Your task to perform on an android device: open app "Move to iOS" (install if not already installed) and enter user name: "Decca@icloud.com" and password: "reabbreviate" Image 0: 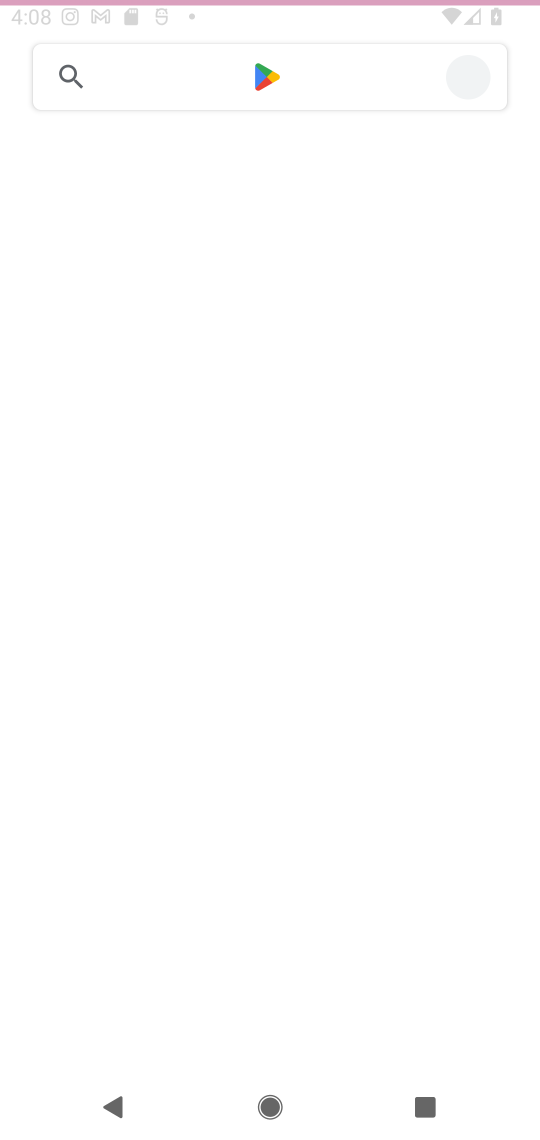
Step 0: press home button
Your task to perform on an android device: open app "Move to iOS" (install if not already installed) and enter user name: "Decca@icloud.com" and password: "reabbreviate" Image 1: 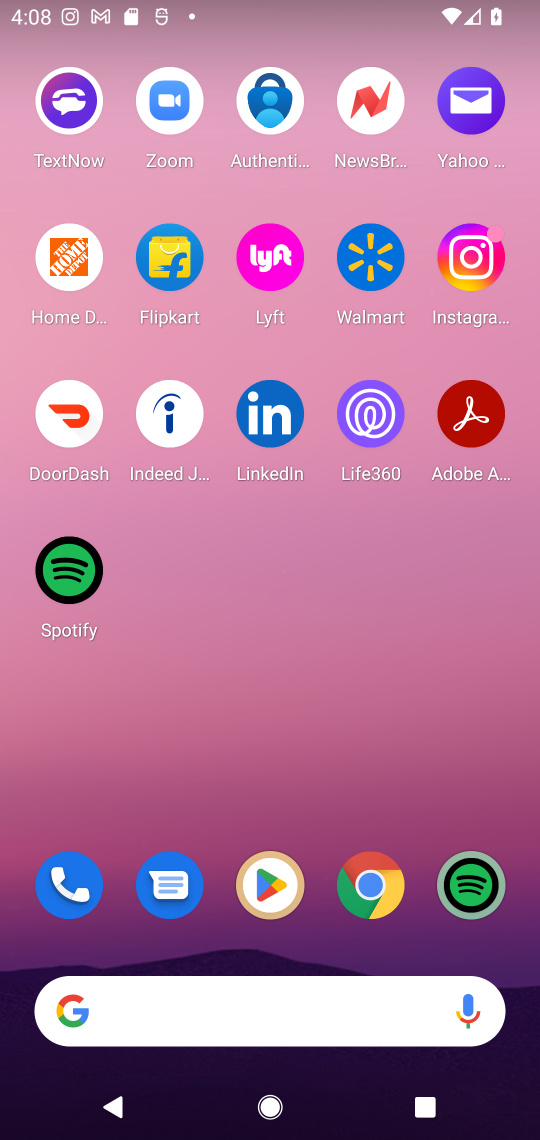
Step 1: press home button
Your task to perform on an android device: open app "Move to iOS" (install if not already installed) and enter user name: "Decca@icloud.com" and password: "reabbreviate" Image 2: 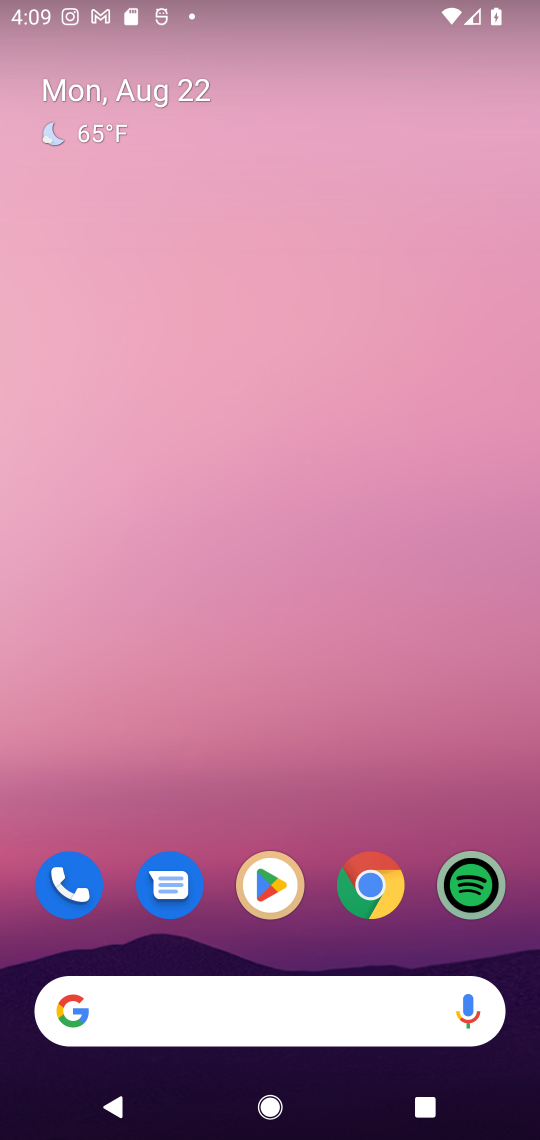
Step 2: click (261, 878)
Your task to perform on an android device: open app "Move to iOS" (install if not already installed) and enter user name: "Decca@icloud.com" and password: "reabbreviate" Image 3: 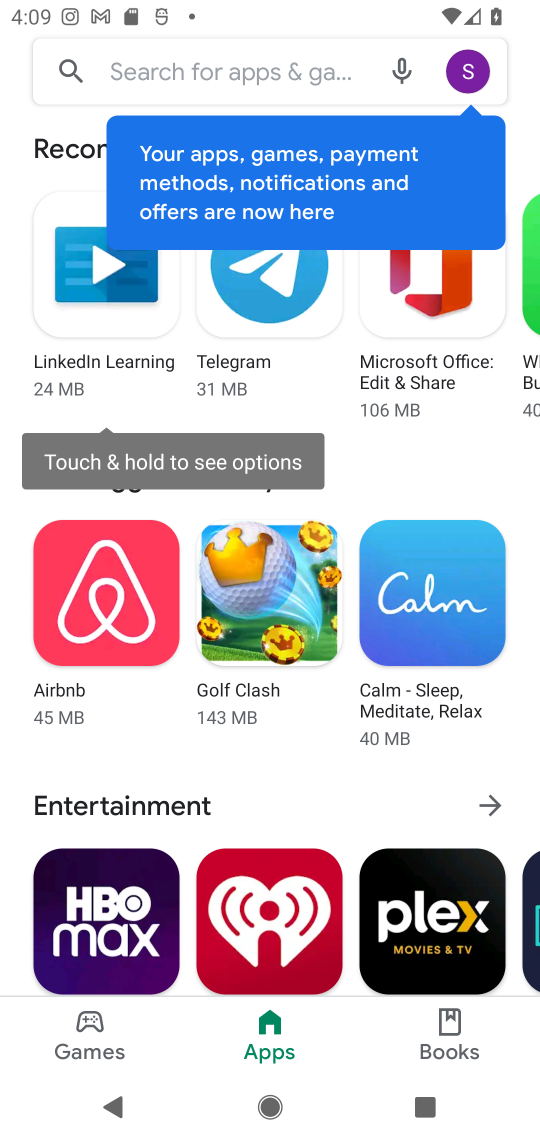
Step 3: click (227, 61)
Your task to perform on an android device: open app "Move to iOS" (install if not already installed) and enter user name: "Decca@icloud.com" and password: "reabbreviate" Image 4: 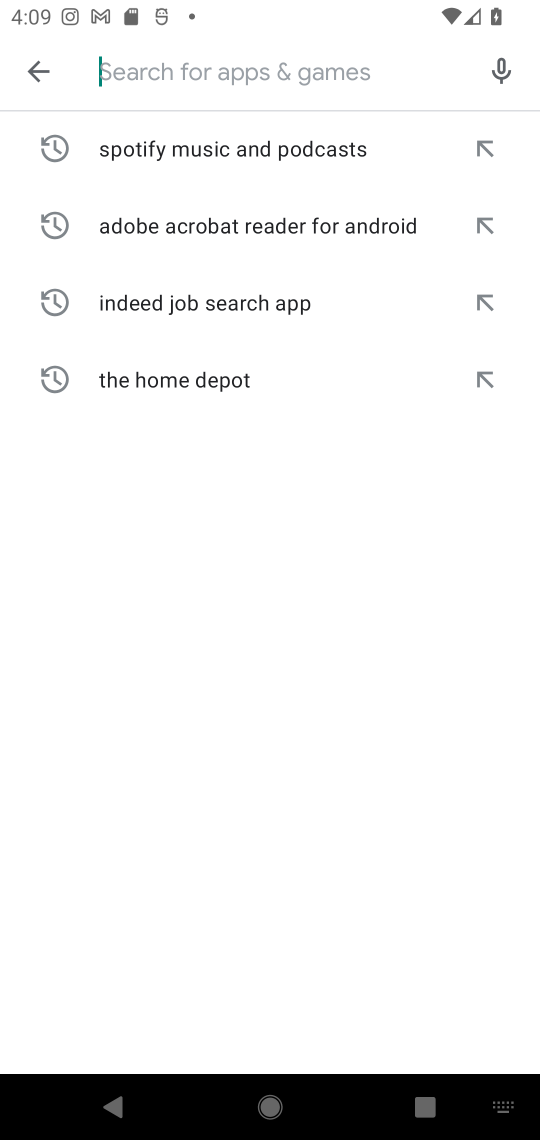
Step 4: type "Move to iOS"
Your task to perform on an android device: open app "Move to iOS" (install if not already installed) and enter user name: "Decca@icloud.com" and password: "reabbreviate" Image 5: 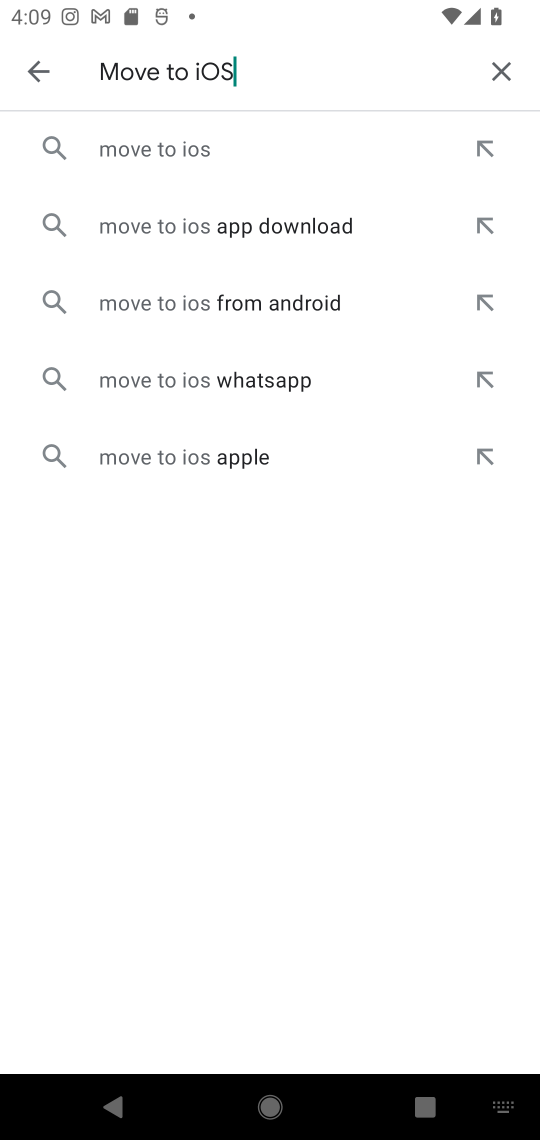
Step 5: click (214, 148)
Your task to perform on an android device: open app "Move to iOS" (install if not already installed) and enter user name: "Decca@icloud.com" and password: "reabbreviate" Image 6: 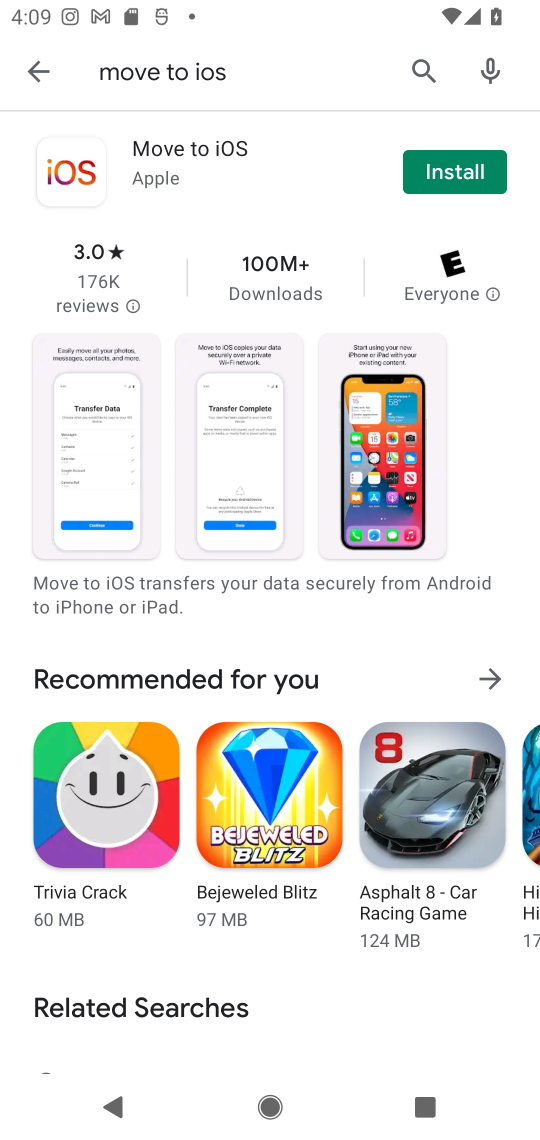
Step 6: click (452, 167)
Your task to perform on an android device: open app "Move to iOS" (install if not already installed) and enter user name: "Decca@icloud.com" and password: "reabbreviate" Image 7: 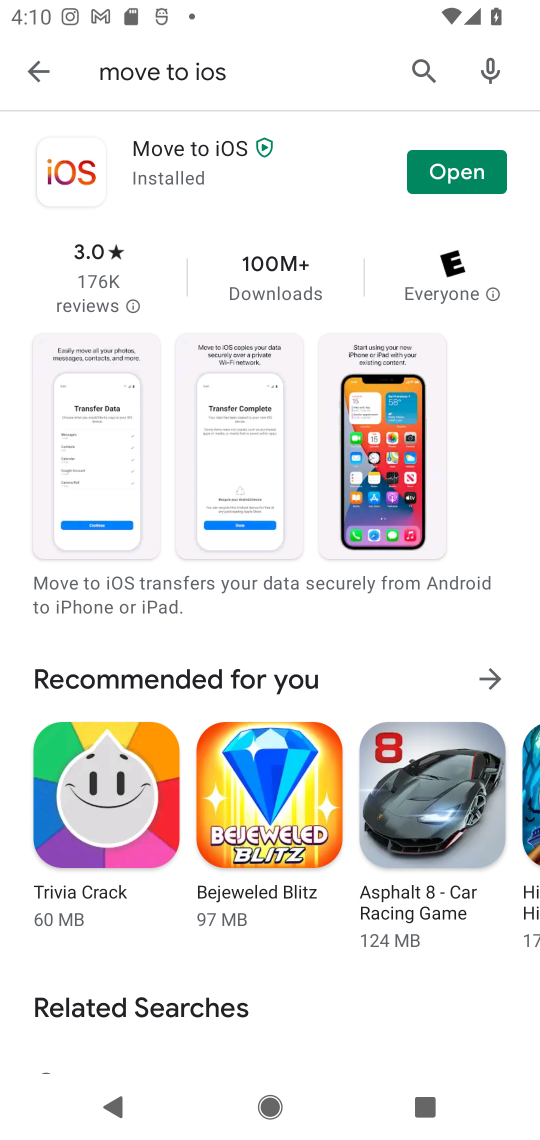
Step 7: click (466, 162)
Your task to perform on an android device: open app "Move to iOS" (install if not already installed) and enter user name: "Decca@icloud.com" and password: "reabbreviate" Image 8: 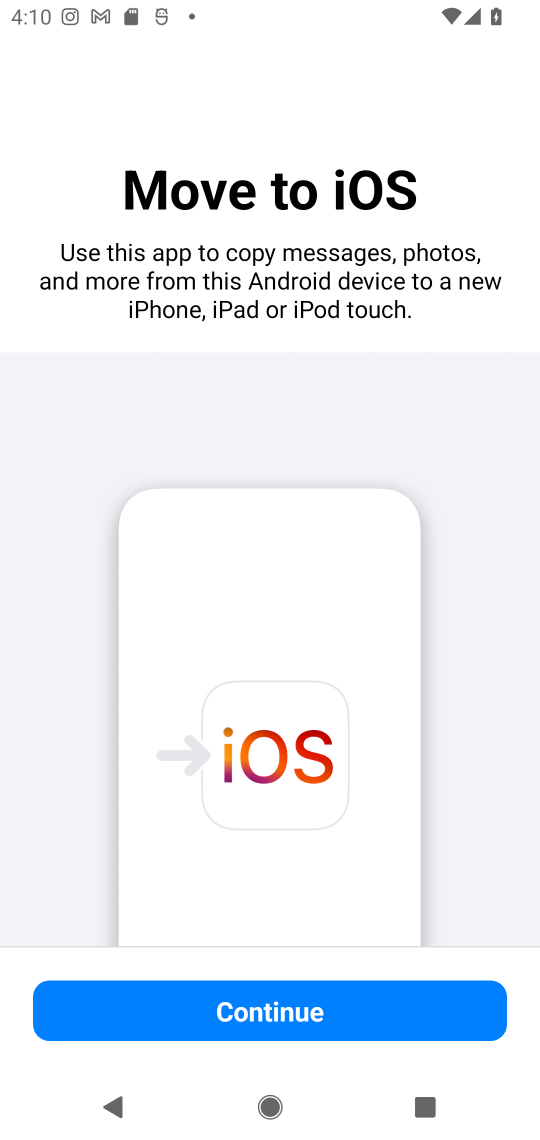
Step 8: click (276, 1010)
Your task to perform on an android device: open app "Move to iOS" (install if not already installed) and enter user name: "Decca@icloud.com" and password: "reabbreviate" Image 9: 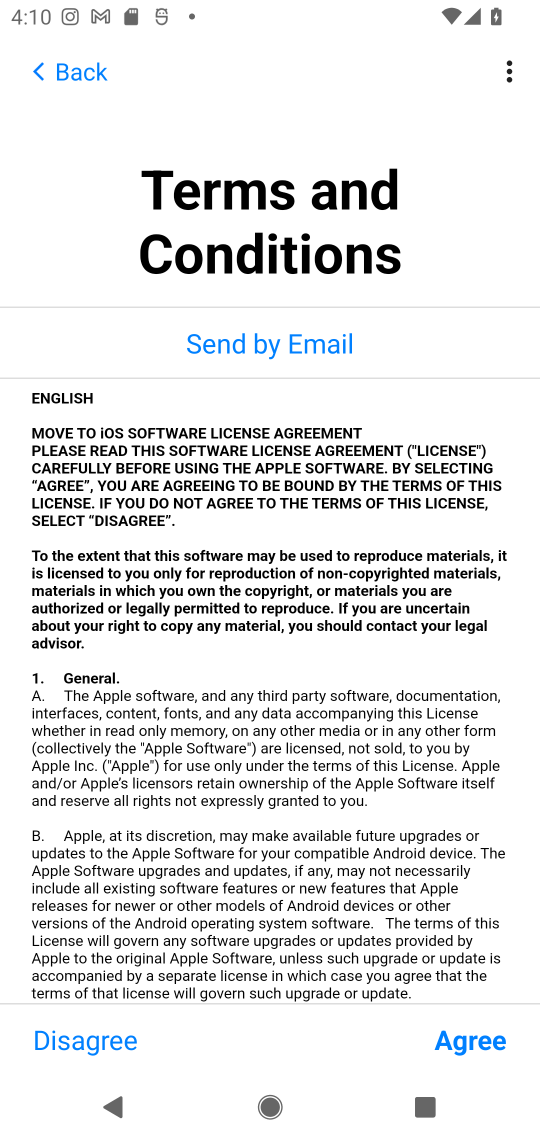
Step 9: click (465, 1043)
Your task to perform on an android device: open app "Move to iOS" (install if not already installed) and enter user name: "Decca@icloud.com" and password: "reabbreviate" Image 10: 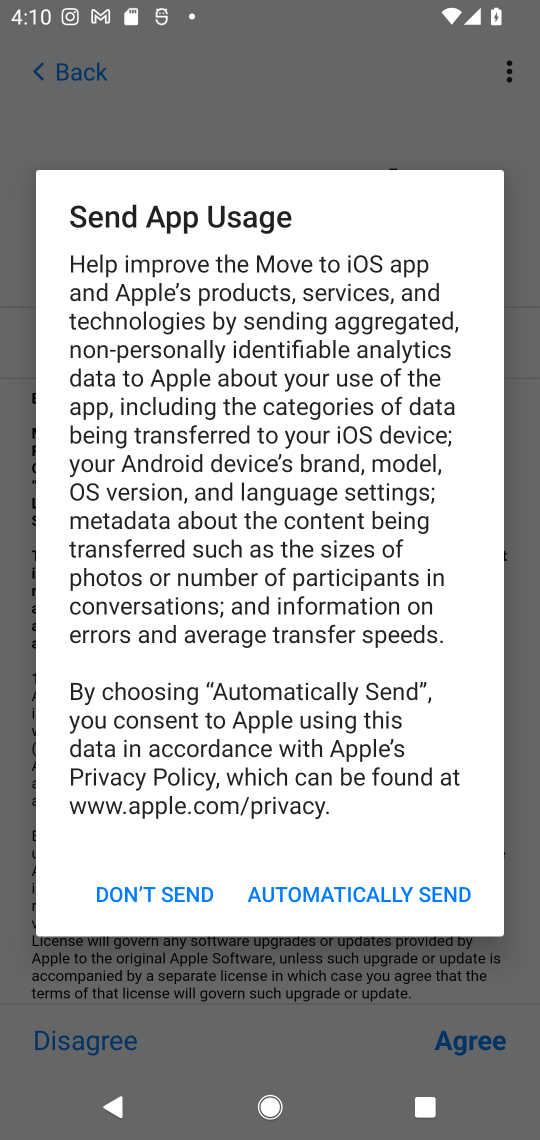
Step 10: click (305, 902)
Your task to perform on an android device: open app "Move to iOS" (install if not already installed) and enter user name: "Decca@icloud.com" and password: "reabbreviate" Image 11: 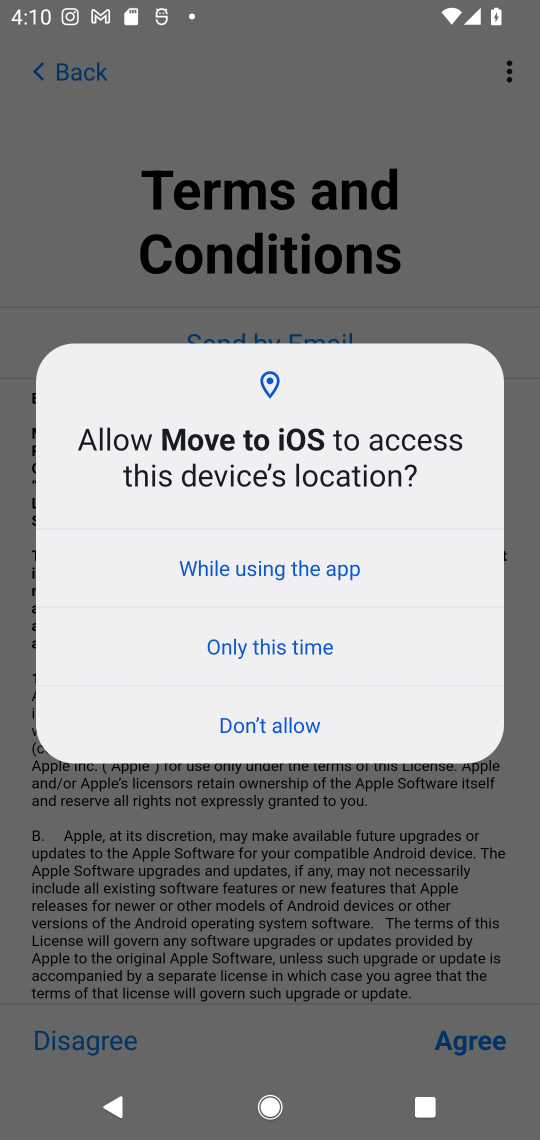
Step 11: click (292, 565)
Your task to perform on an android device: open app "Move to iOS" (install if not already installed) and enter user name: "Decca@icloud.com" and password: "reabbreviate" Image 12: 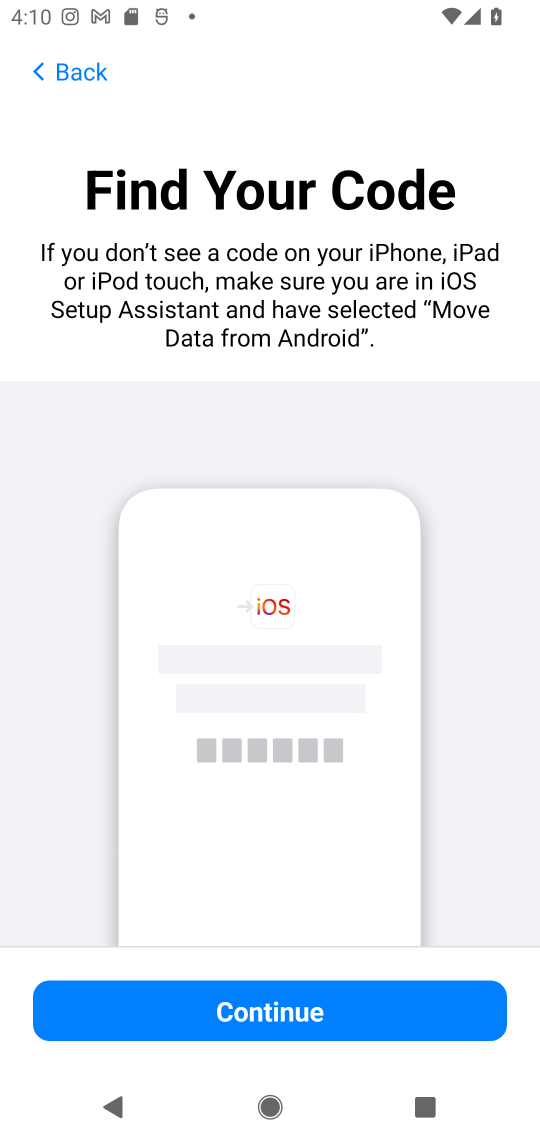
Step 12: click (277, 1023)
Your task to perform on an android device: open app "Move to iOS" (install if not already installed) and enter user name: "Decca@icloud.com" and password: "reabbreviate" Image 13: 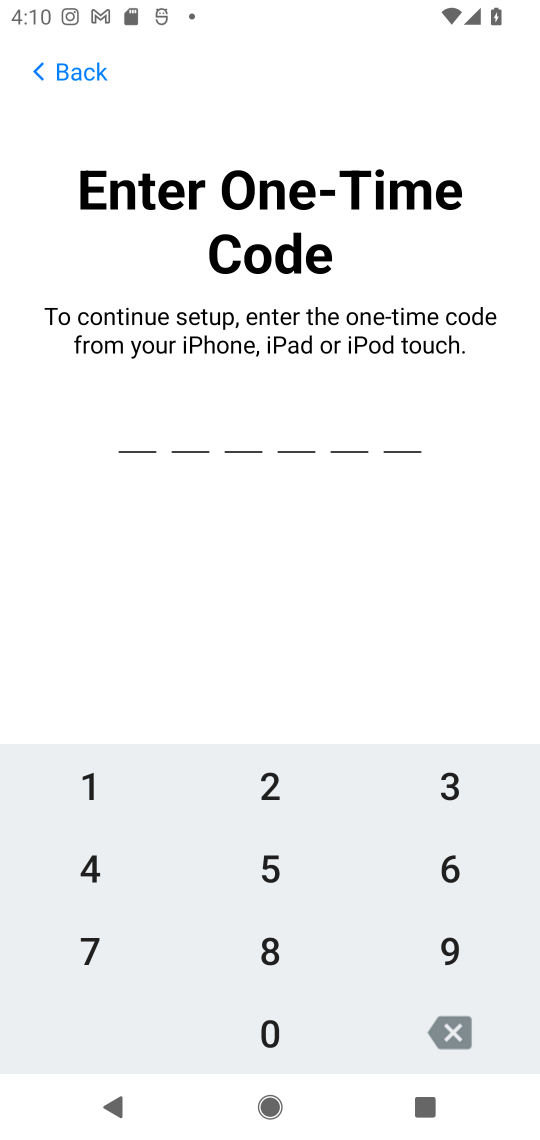
Step 13: task complete